Your task to perform on an android device: turn on data saver in the chrome app Image 0: 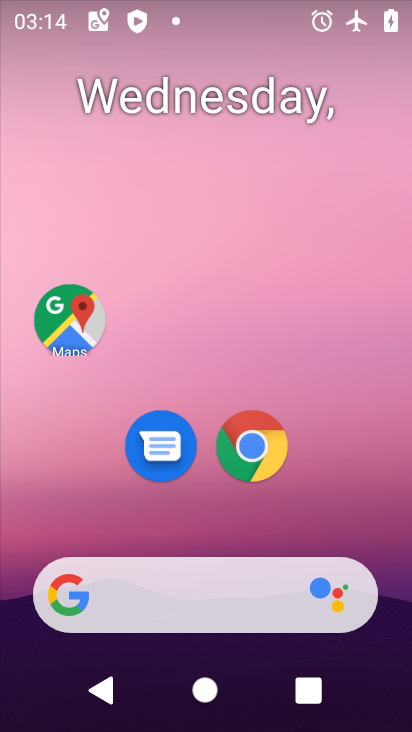
Step 0: click (259, 462)
Your task to perform on an android device: turn on data saver in the chrome app Image 1: 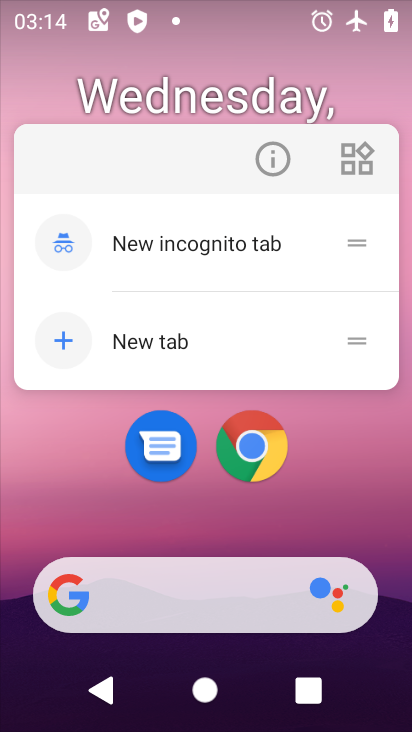
Step 1: click (258, 446)
Your task to perform on an android device: turn on data saver in the chrome app Image 2: 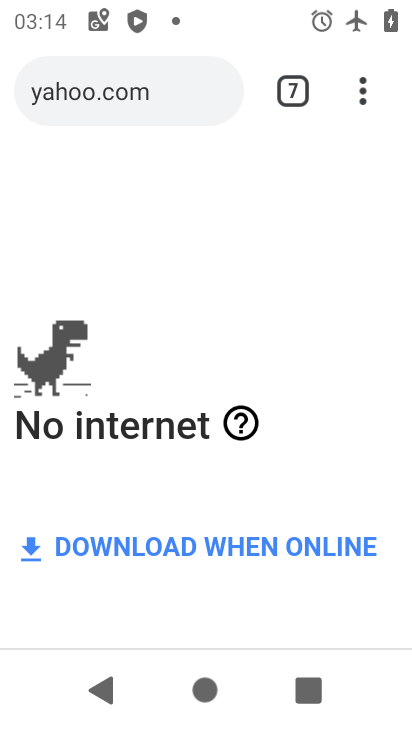
Step 2: drag from (364, 93) to (76, 466)
Your task to perform on an android device: turn on data saver in the chrome app Image 3: 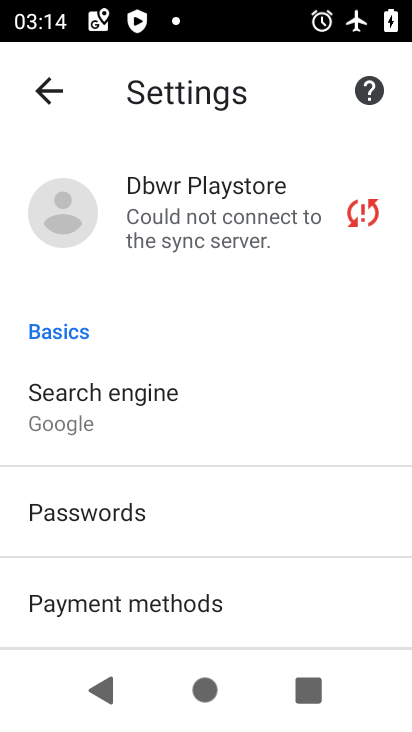
Step 3: drag from (133, 539) to (137, 313)
Your task to perform on an android device: turn on data saver in the chrome app Image 4: 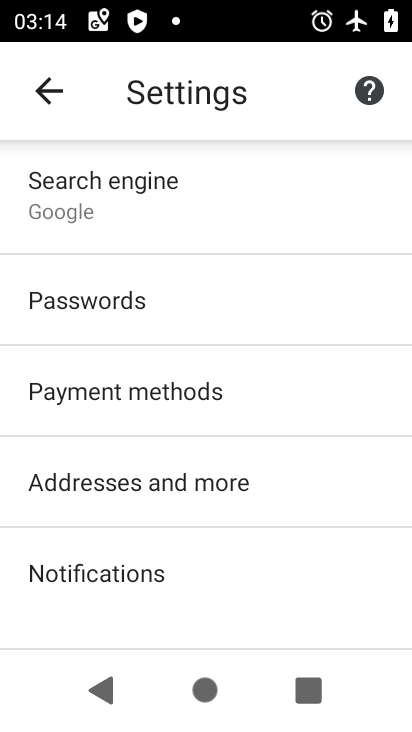
Step 4: drag from (127, 560) to (137, 367)
Your task to perform on an android device: turn on data saver in the chrome app Image 5: 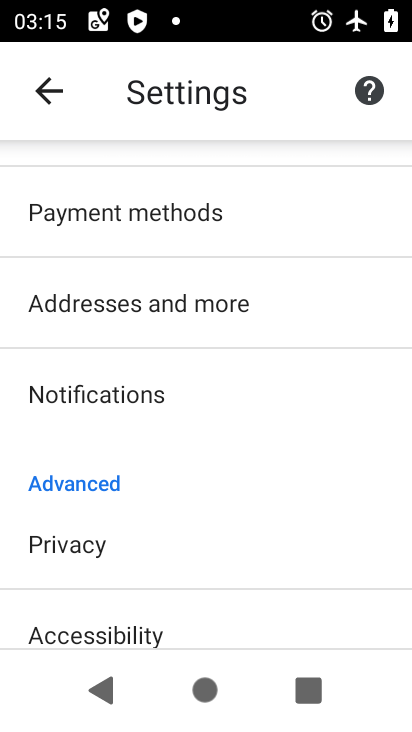
Step 5: drag from (148, 544) to (178, 319)
Your task to perform on an android device: turn on data saver in the chrome app Image 6: 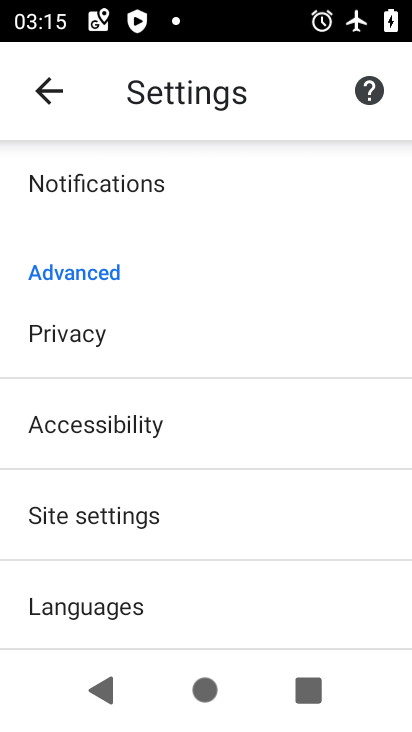
Step 6: drag from (183, 538) to (192, 377)
Your task to perform on an android device: turn on data saver in the chrome app Image 7: 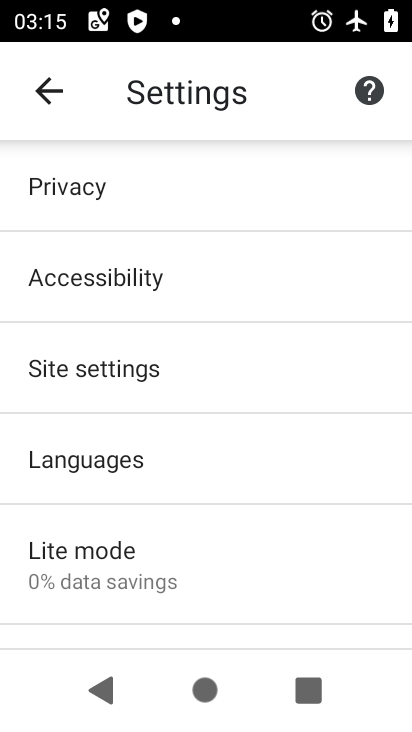
Step 7: click (175, 564)
Your task to perform on an android device: turn on data saver in the chrome app Image 8: 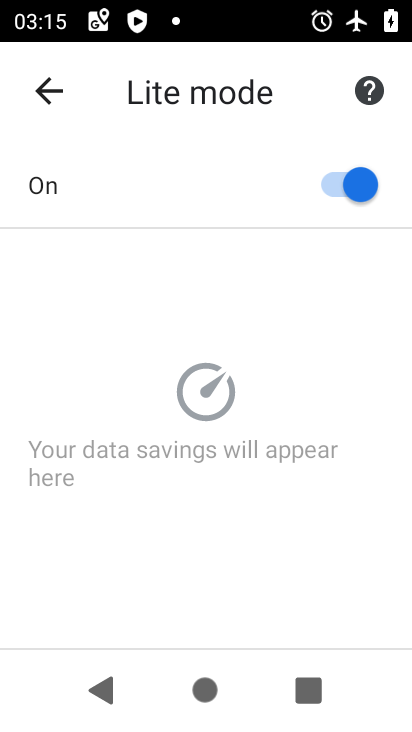
Step 8: task complete